Your task to perform on an android device: create a new album in the google photos Image 0: 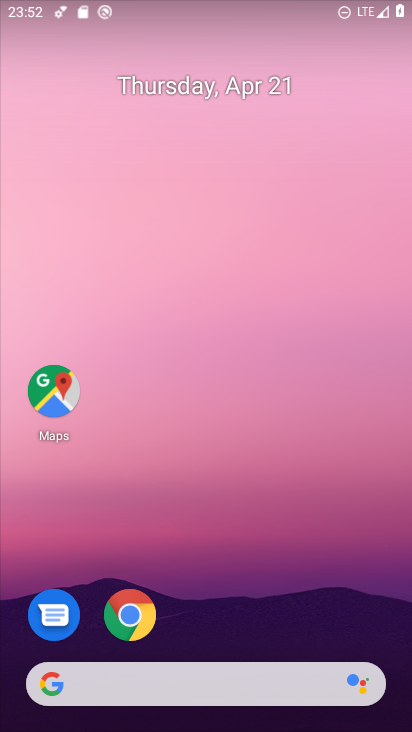
Step 0: drag from (227, 632) to (233, 71)
Your task to perform on an android device: create a new album in the google photos Image 1: 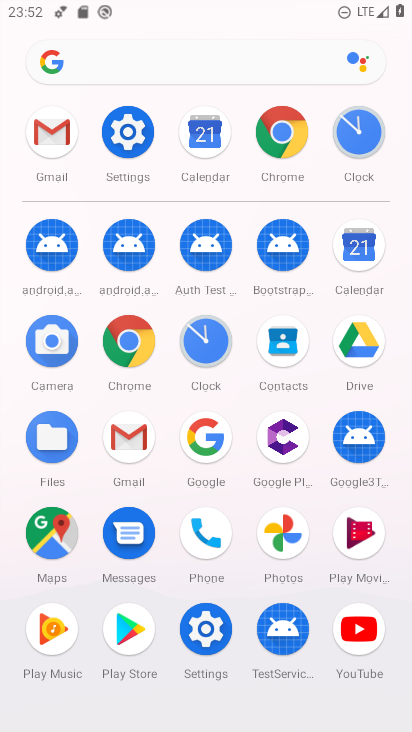
Step 1: click (285, 530)
Your task to perform on an android device: create a new album in the google photos Image 2: 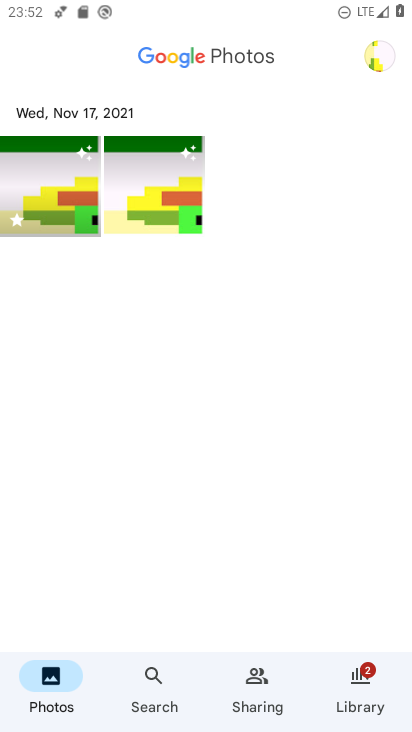
Step 2: click (241, 679)
Your task to perform on an android device: create a new album in the google photos Image 3: 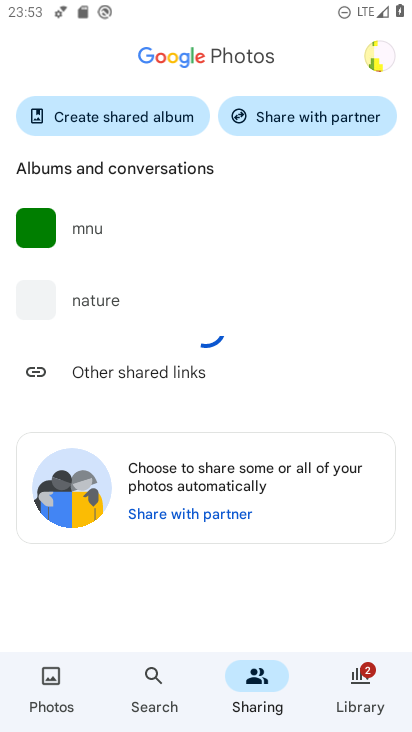
Step 3: click (124, 114)
Your task to perform on an android device: create a new album in the google photos Image 4: 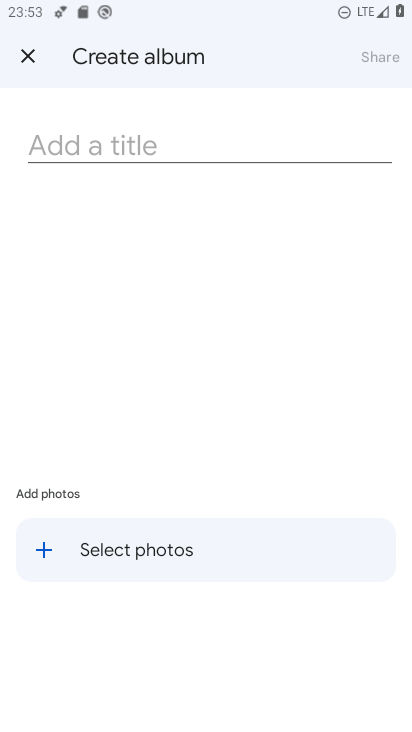
Step 4: click (48, 554)
Your task to perform on an android device: create a new album in the google photos Image 5: 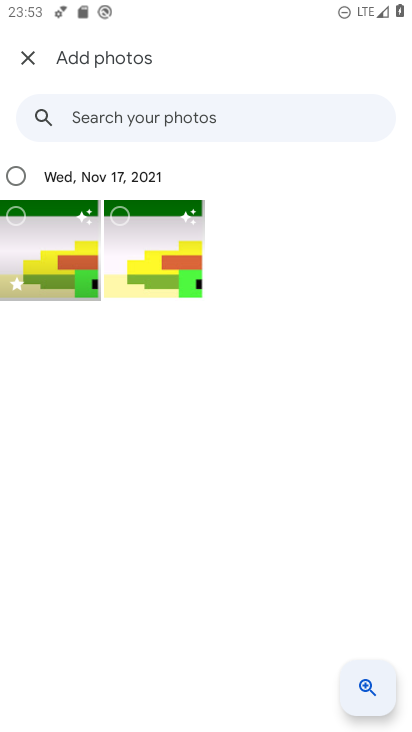
Step 5: click (15, 178)
Your task to perform on an android device: create a new album in the google photos Image 6: 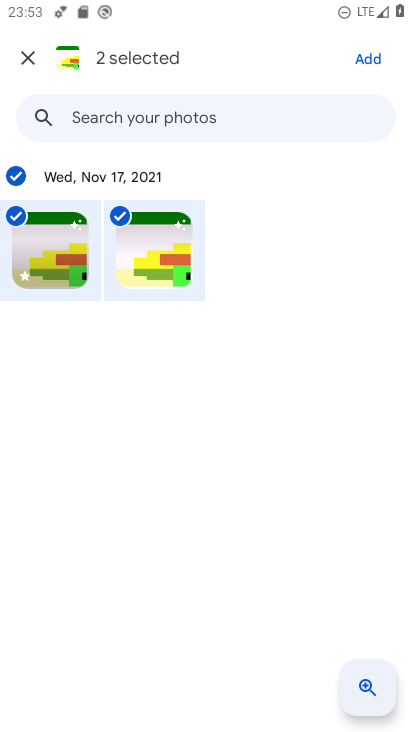
Step 6: click (366, 60)
Your task to perform on an android device: create a new album in the google photos Image 7: 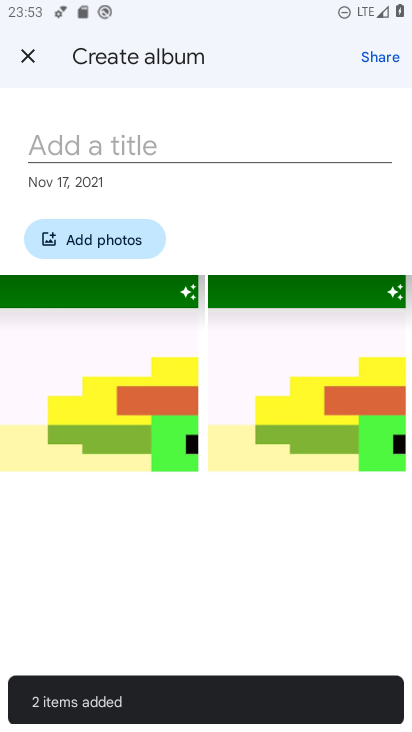
Step 7: click (131, 145)
Your task to perform on an android device: create a new album in the google photos Image 8: 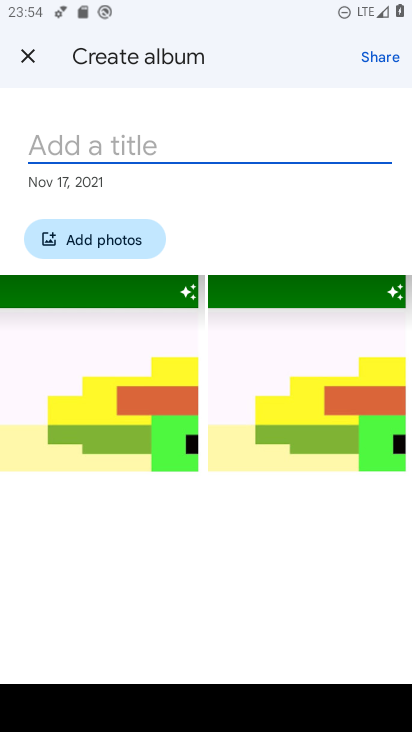
Step 8: type "hgcfgrfs"
Your task to perform on an android device: create a new album in the google photos Image 9: 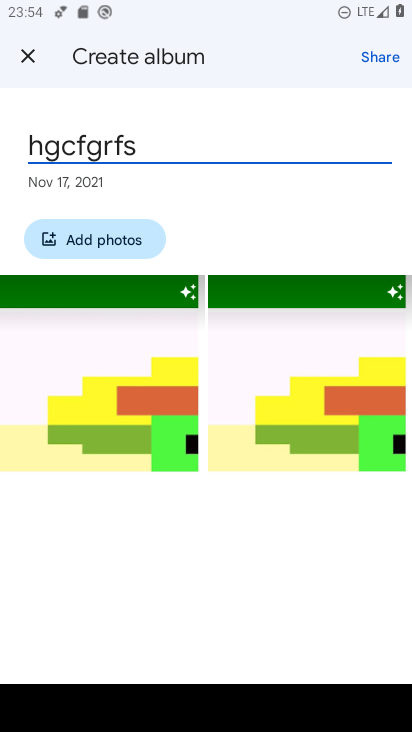
Step 9: click (176, 606)
Your task to perform on an android device: create a new album in the google photos Image 10: 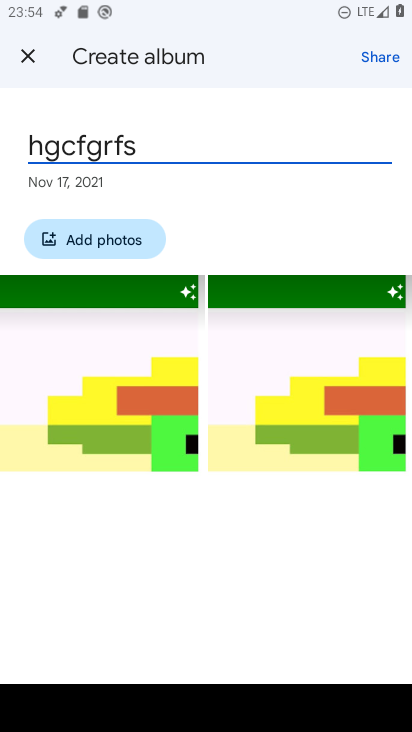
Step 10: click (299, 577)
Your task to perform on an android device: create a new album in the google photos Image 11: 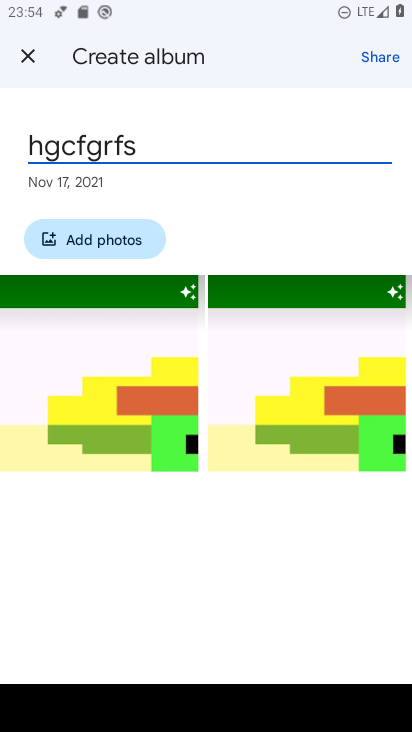
Step 11: task complete